Your task to perform on an android device: turn on location history Image 0: 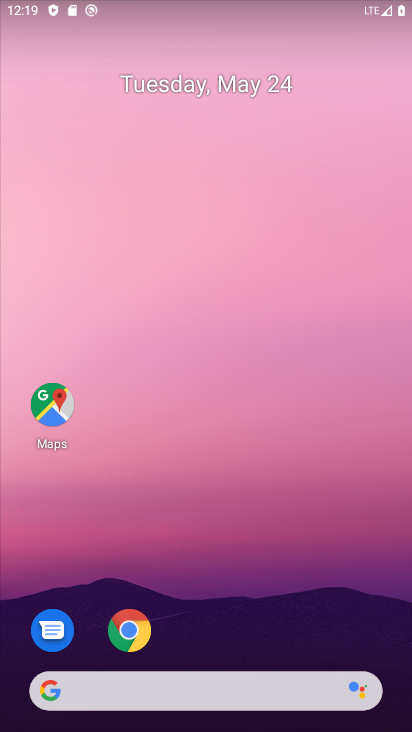
Step 0: drag from (310, 600) to (354, 183)
Your task to perform on an android device: turn on location history Image 1: 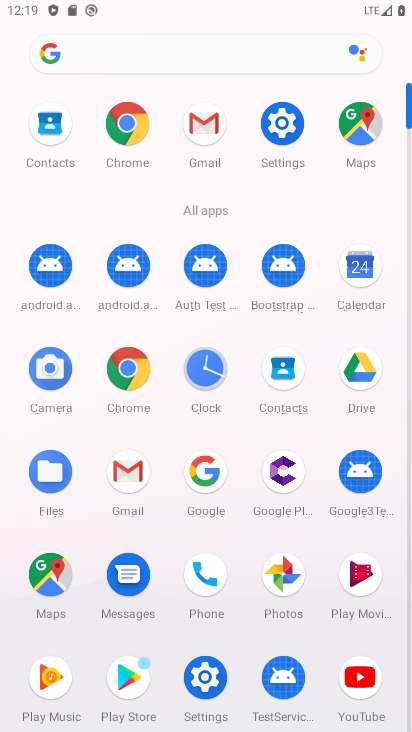
Step 1: click (215, 685)
Your task to perform on an android device: turn on location history Image 2: 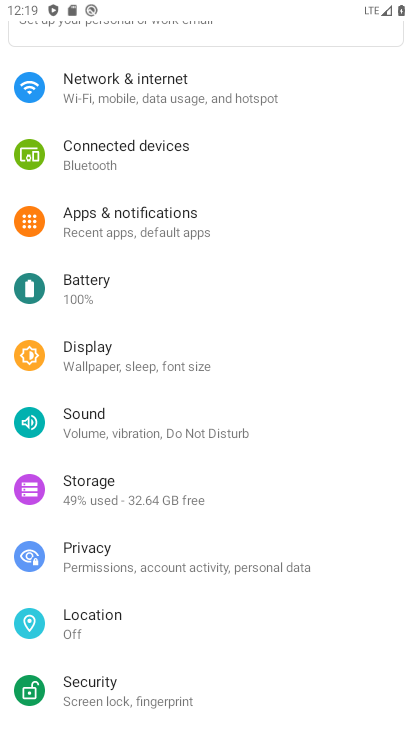
Step 2: click (83, 631)
Your task to perform on an android device: turn on location history Image 3: 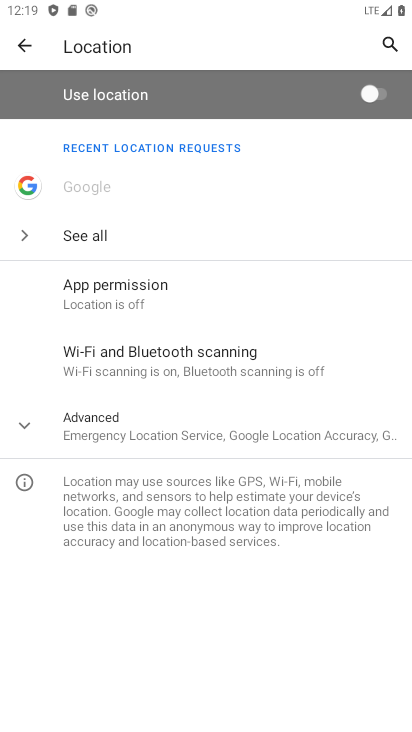
Step 3: click (361, 102)
Your task to perform on an android device: turn on location history Image 4: 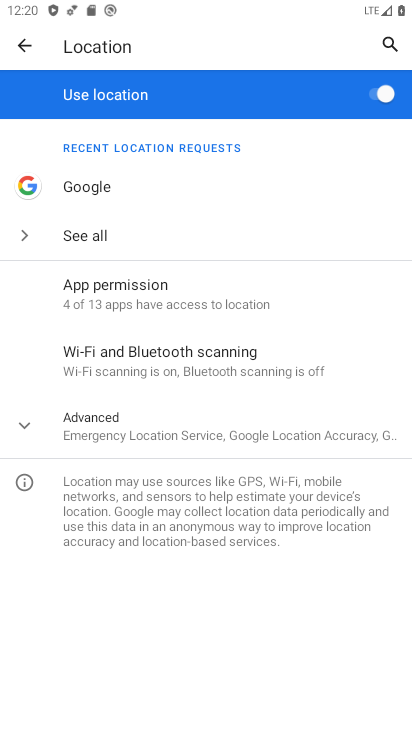
Step 4: task complete